Your task to perform on an android device: visit the assistant section in the google photos Image 0: 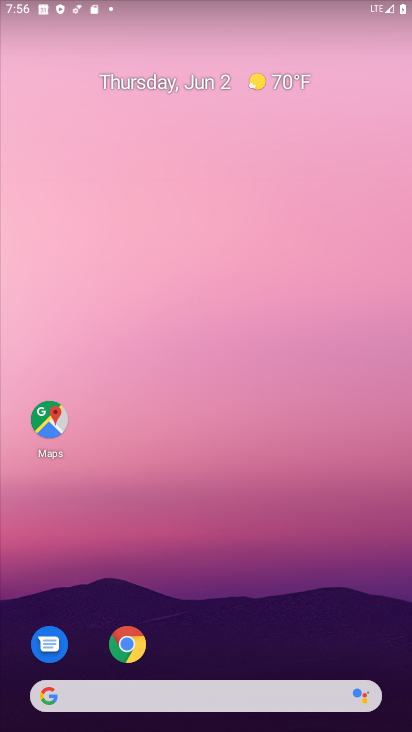
Step 0: drag from (242, 584) to (201, 14)
Your task to perform on an android device: visit the assistant section in the google photos Image 1: 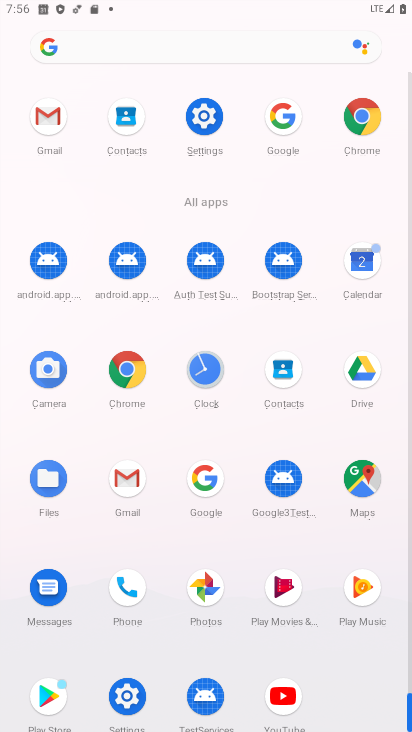
Step 1: drag from (10, 526) to (9, 223)
Your task to perform on an android device: visit the assistant section in the google photos Image 2: 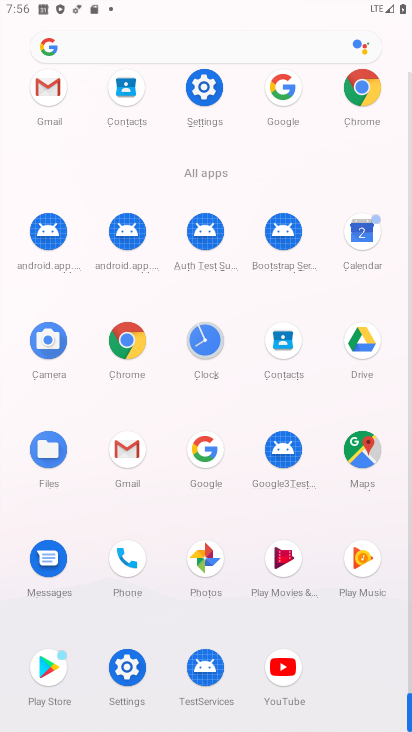
Step 2: click (204, 558)
Your task to perform on an android device: visit the assistant section in the google photos Image 3: 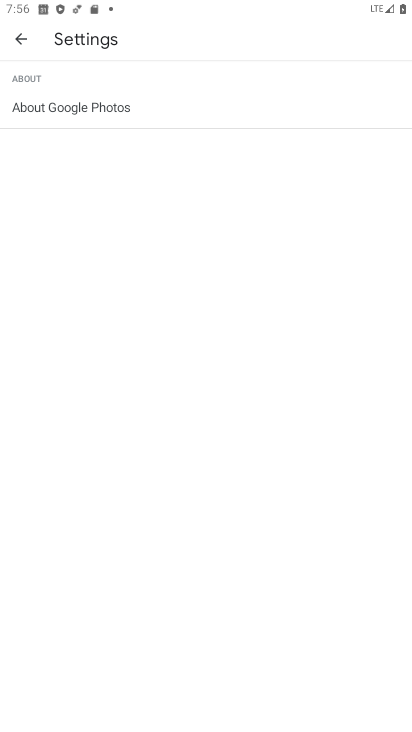
Step 3: click (13, 35)
Your task to perform on an android device: visit the assistant section in the google photos Image 4: 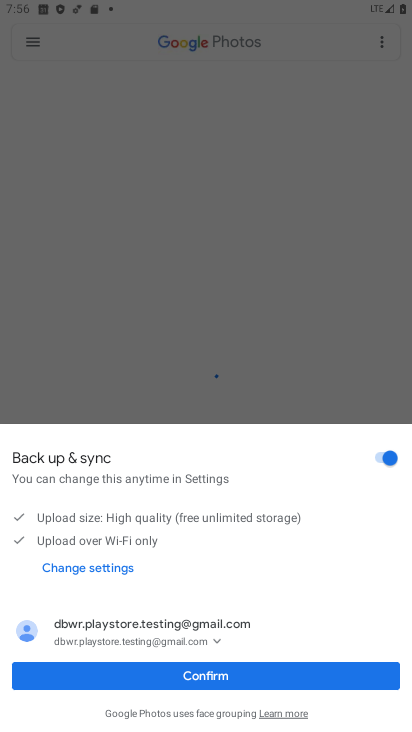
Step 4: click (209, 671)
Your task to perform on an android device: visit the assistant section in the google photos Image 5: 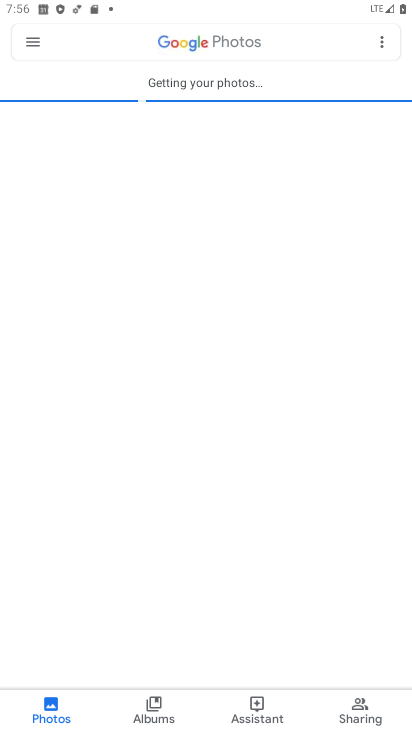
Step 5: click (258, 708)
Your task to perform on an android device: visit the assistant section in the google photos Image 6: 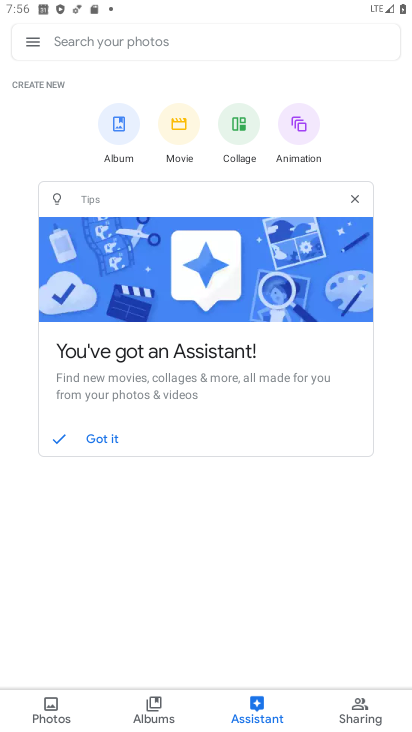
Step 6: click (100, 443)
Your task to perform on an android device: visit the assistant section in the google photos Image 7: 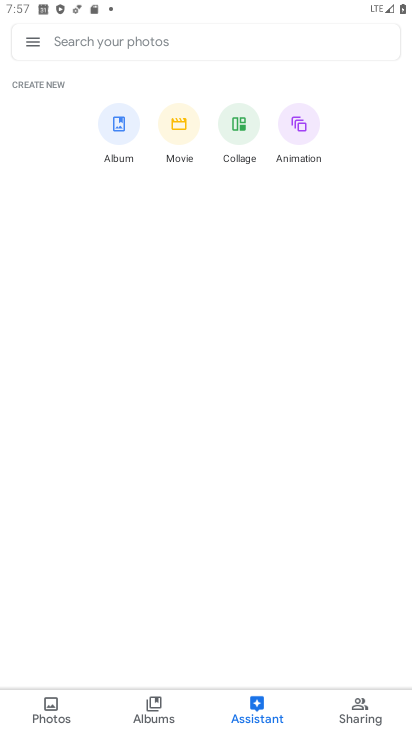
Step 7: task complete